Your task to perform on an android device: Clear all items from cart on ebay. Image 0: 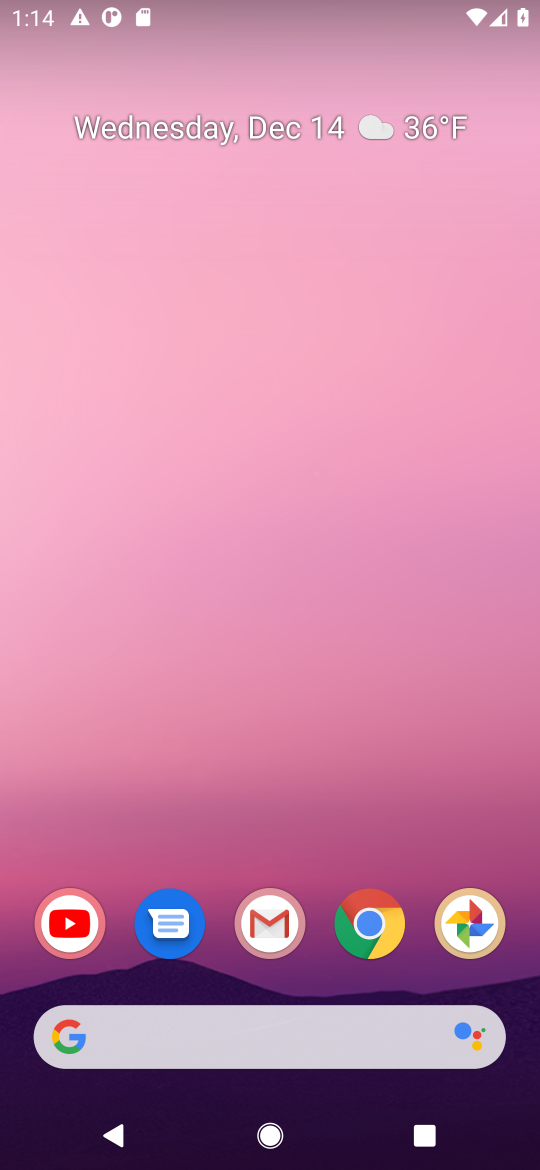
Step 0: click (335, 1051)
Your task to perform on an android device: Clear all items from cart on ebay. Image 1: 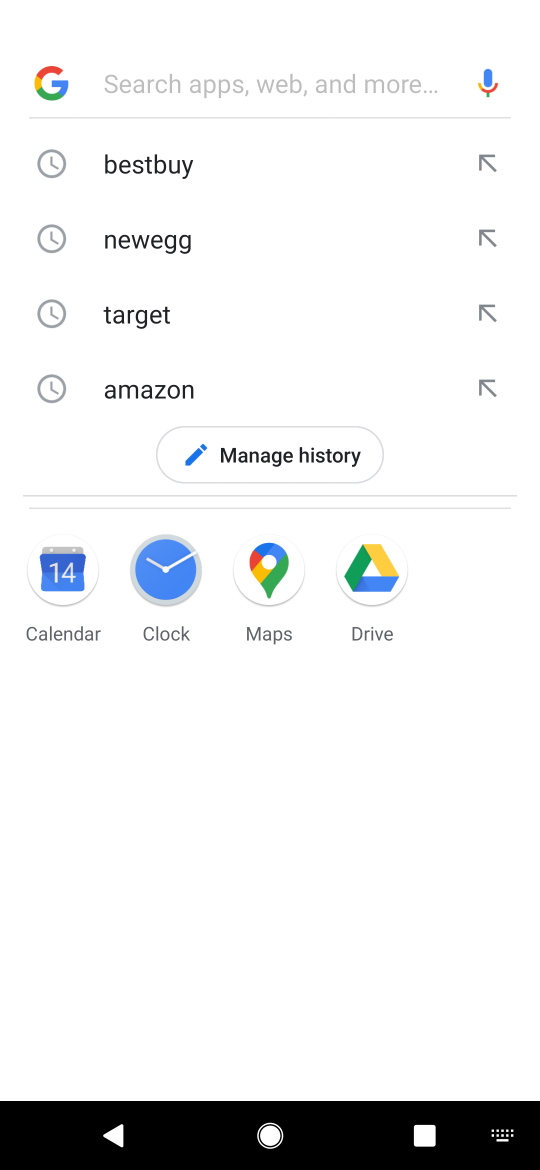
Step 1: type "ebay.com"
Your task to perform on an android device: Clear all items from cart on ebay. Image 2: 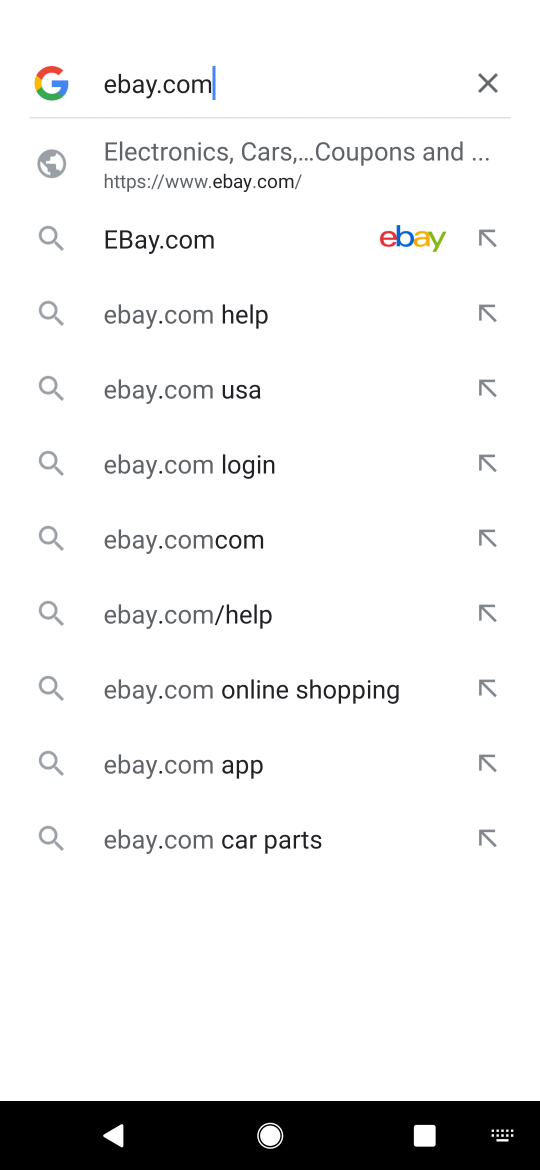
Step 2: click (325, 170)
Your task to perform on an android device: Clear all items from cart on ebay. Image 3: 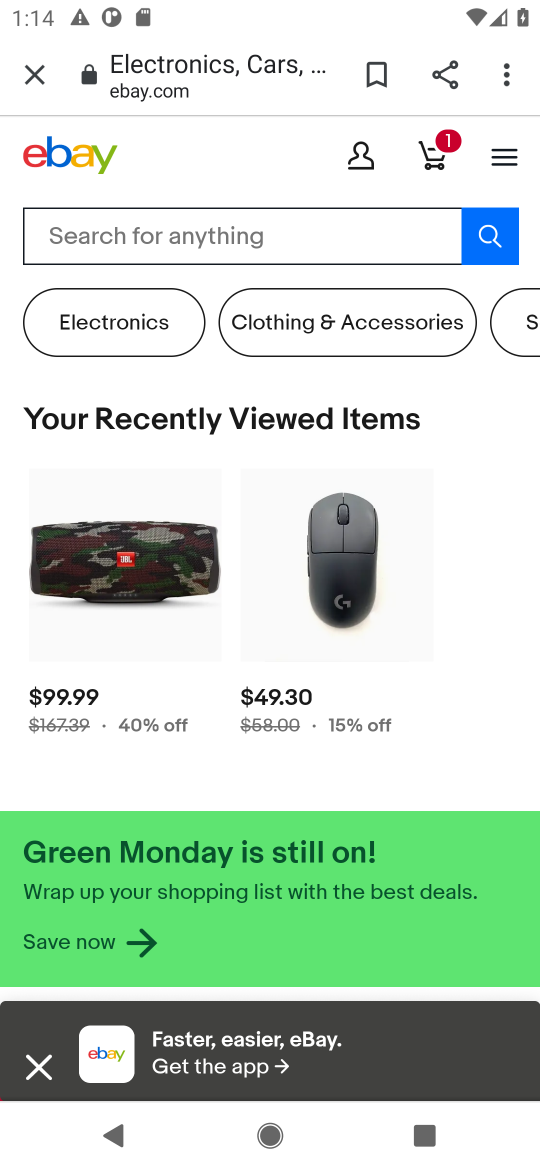
Step 3: click (443, 164)
Your task to perform on an android device: Clear all items from cart on ebay. Image 4: 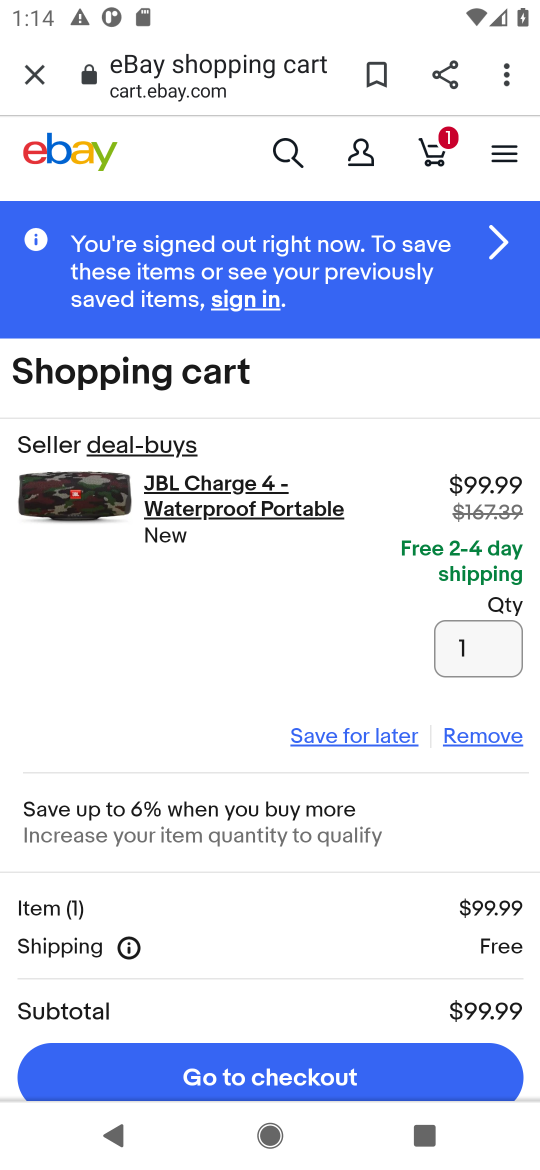
Step 4: click (484, 751)
Your task to perform on an android device: Clear all items from cart on ebay. Image 5: 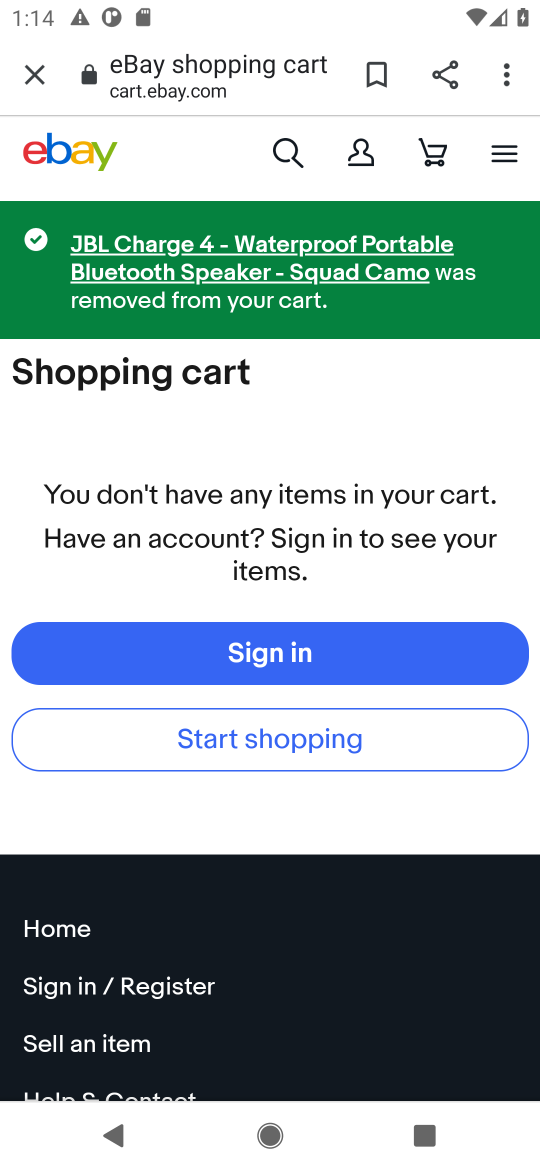
Step 5: task complete